Your task to perform on an android device: Open the Play Movies app and select the watchlist tab. Image 0: 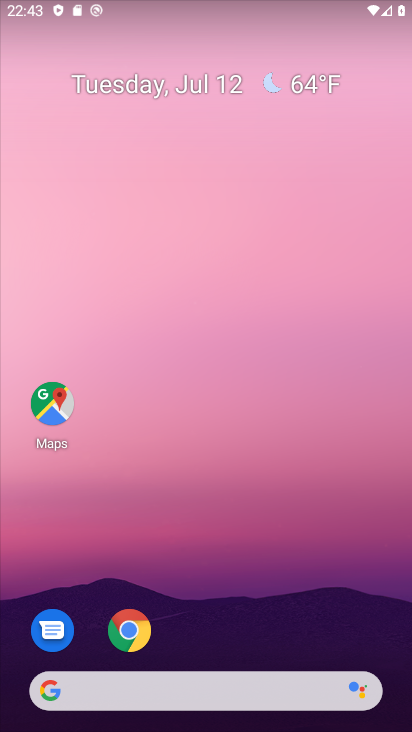
Step 0: drag from (332, 612) to (367, 183)
Your task to perform on an android device: Open the Play Movies app and select the watchlist tab. Image 1: 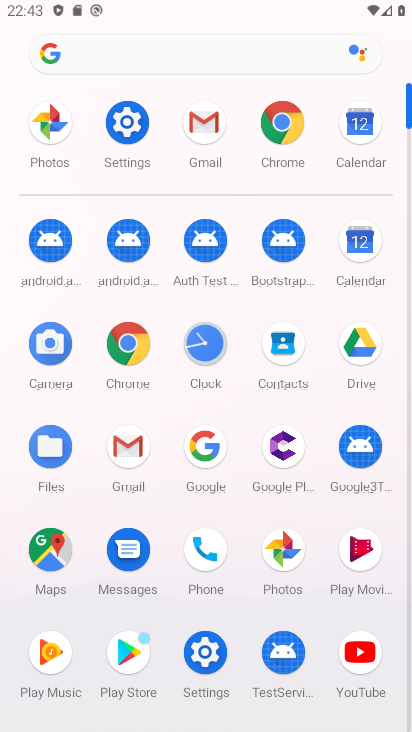
Step 1: click (370, 556)
Your task to perform on an android device: Open the Play Movies app and select the watchlist tab. Image 2: 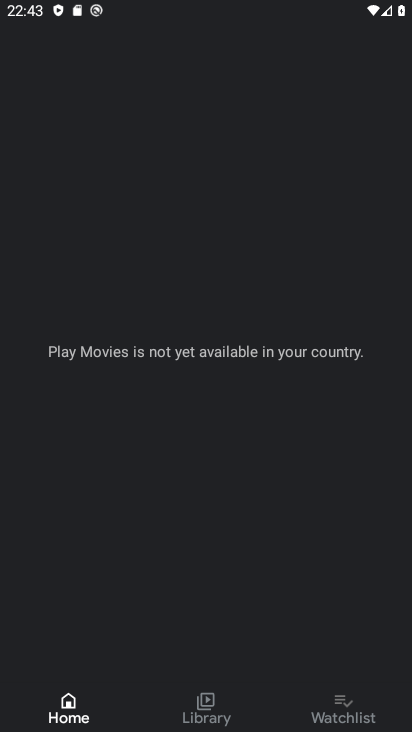
Step 2: click (346, 702)
Your task to perform on an android device: Open the Play Movies app and select the watchlist tab. Image 3: 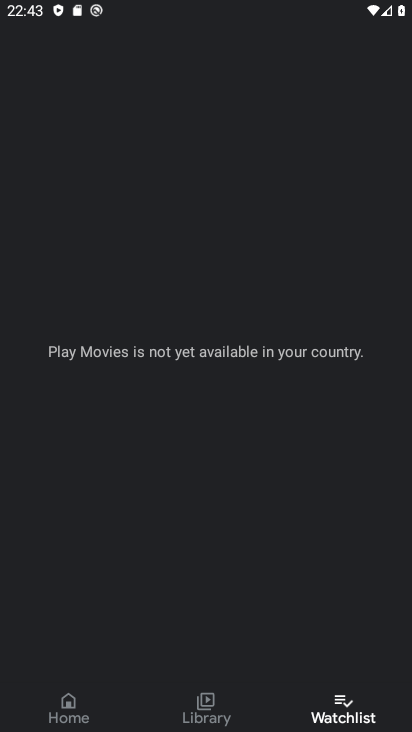
Step 3: task complete